Your task to perform on an android device: show emergency info Image 0: 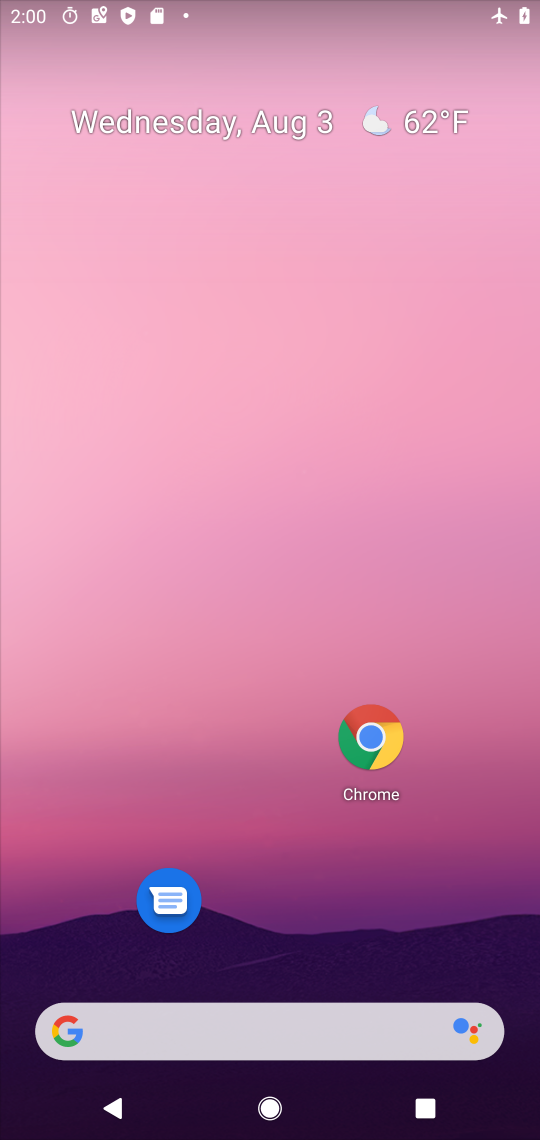
Step 0: drag from (292, 830) to (328, 137)
Your task to perform on an android device: show emergency info Image 1: 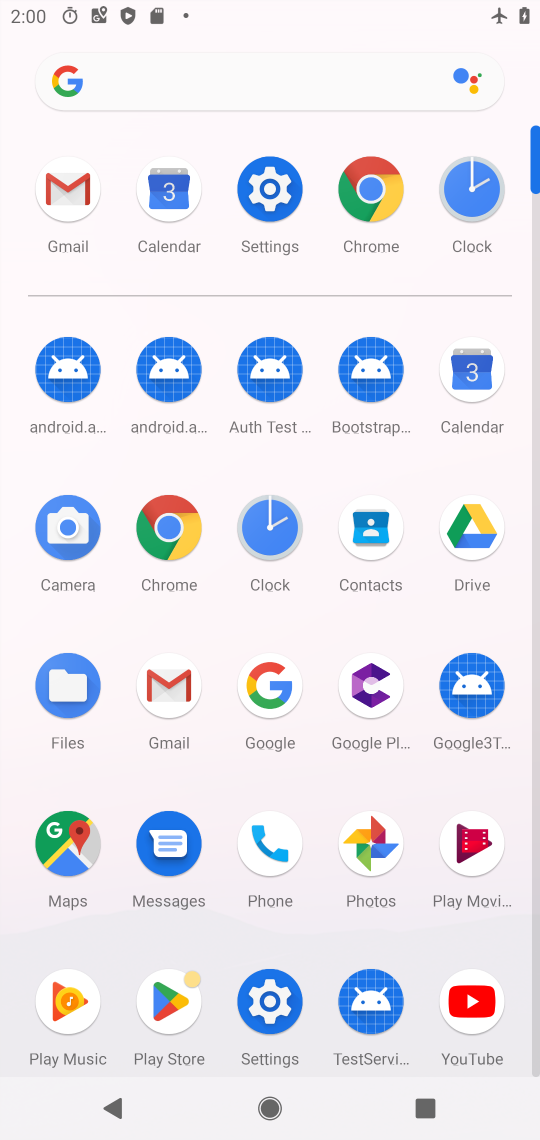
Step 1: click (278, 185)
Your task to perform on an android device: show emergency info Image 2: 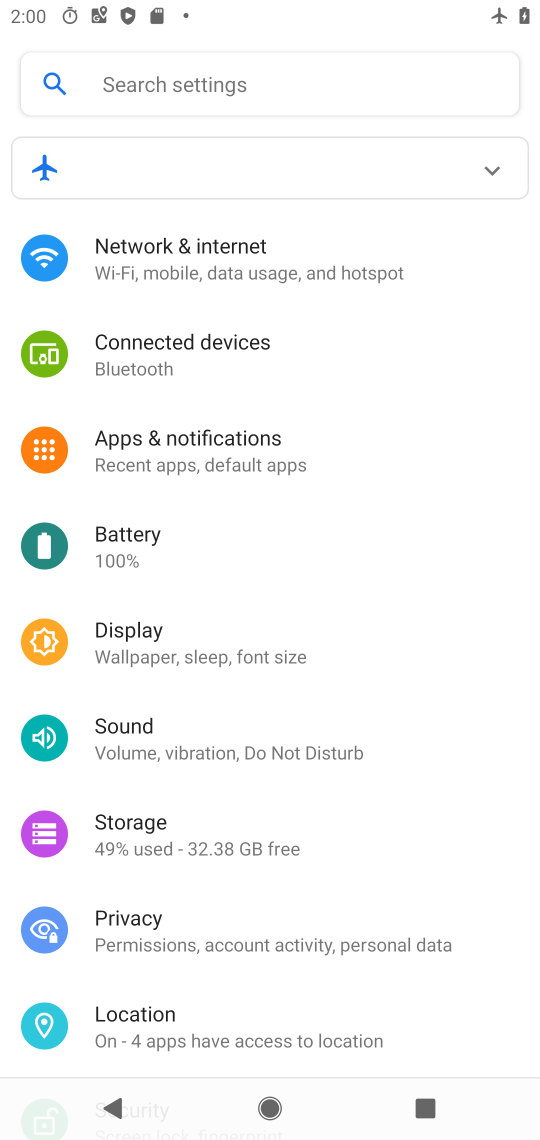
Step 2: drag from (304, 968) to (341, 230)
Your task to perform on an android device: show emergency info Image 3: 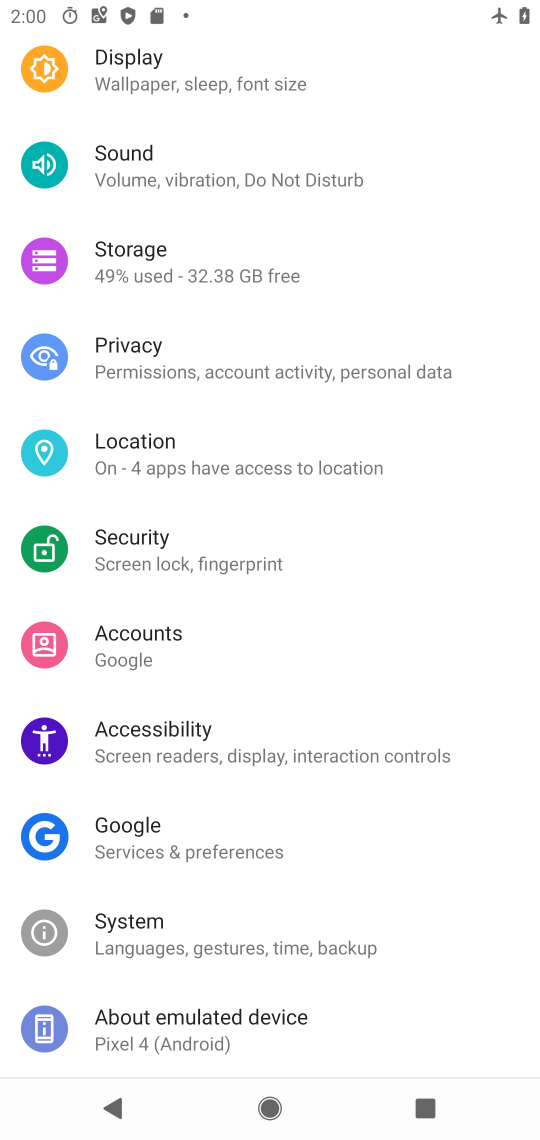
Step 3: click (223, 1022)
Your task to perform on an android device: show emergency info Image 4: 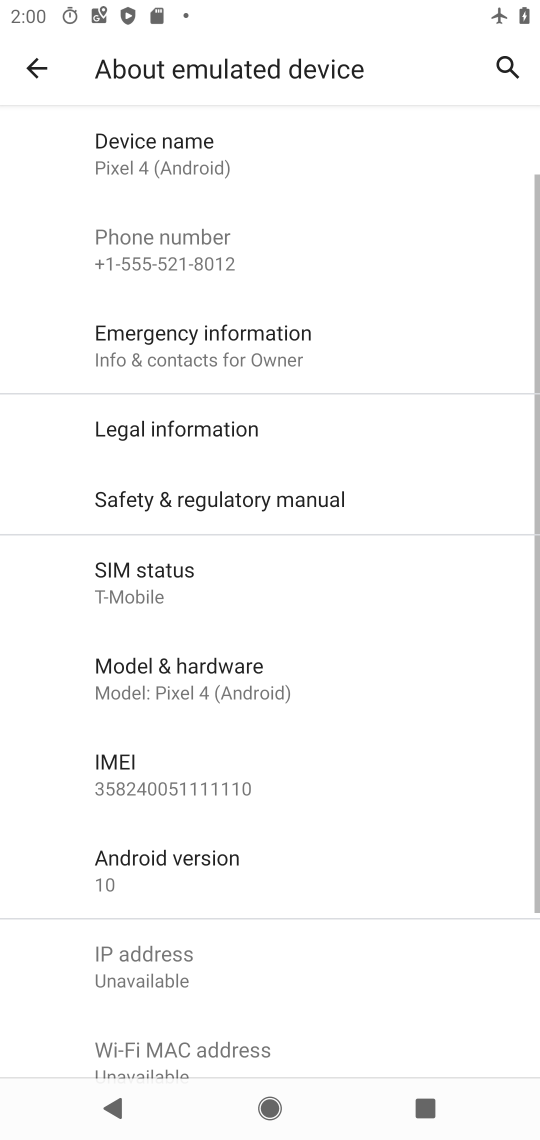
Step 4: click (245, 367)
Your task to perform on an android device: show emergency info Image 5: 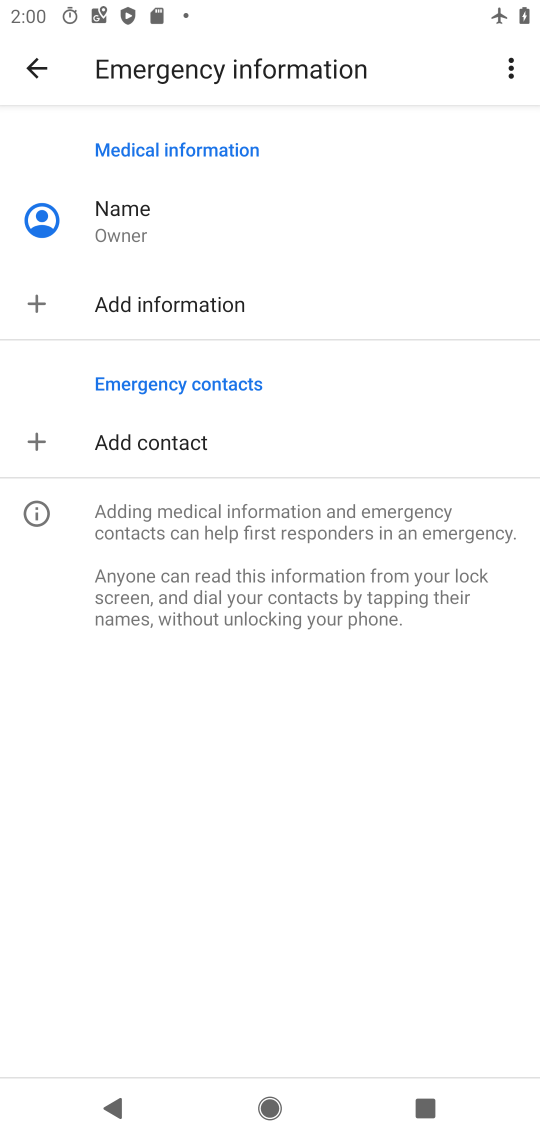
Step 5: task complete